Your task to perform on an android device: delete location history Image 0: 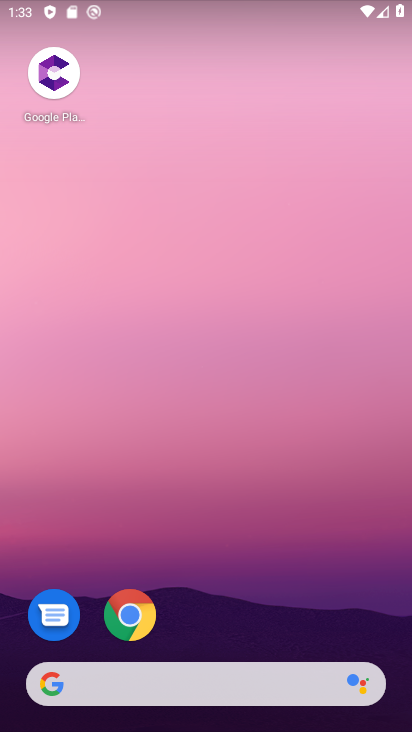
Step 0: drag from (276, 576) to (254, 204)
Your task to perform on an android device: delete location history Image 1: 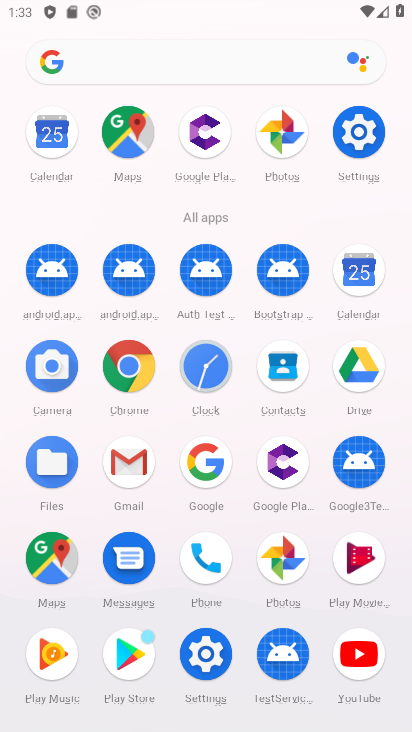
Step 1: click (129, 133)
Your task to perform on an android device: delete location history Image 2: 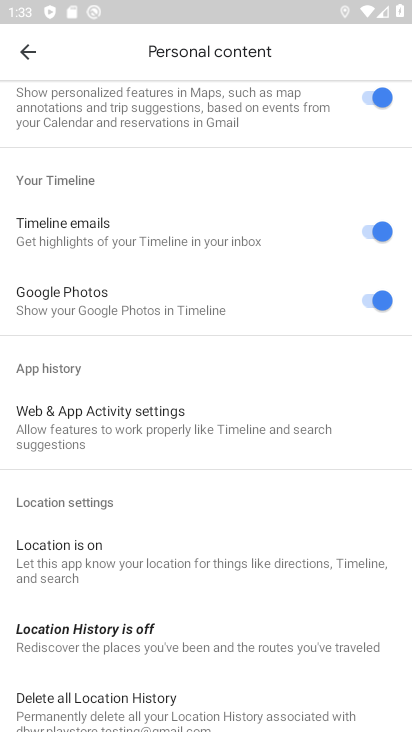
Step 2: drag from (201, 669) to (155, 249)
Your task to perform on an android device: delete location history Image 3: 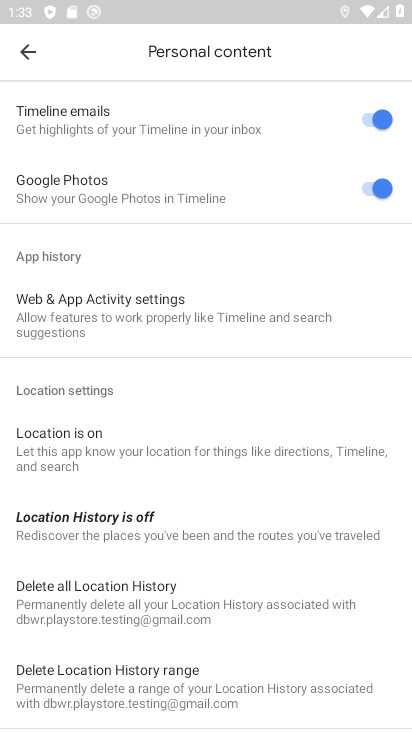
Step 3: click (182, 605)
Your task to perform on an android device: delete location history Image 4: 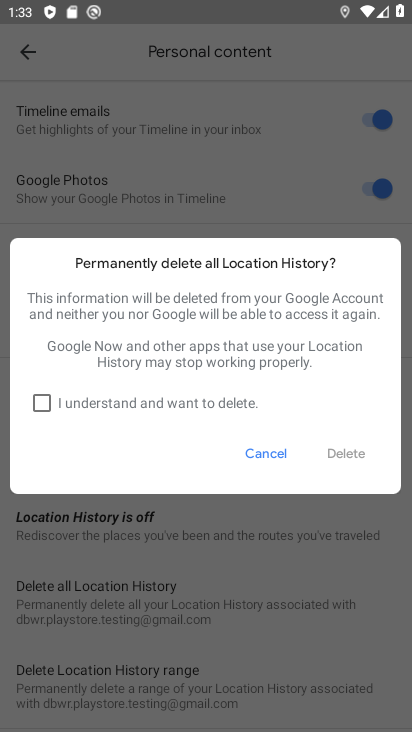
Step 4: click (197, 421)
Your task to perform on an android device: delete location history Image 5: 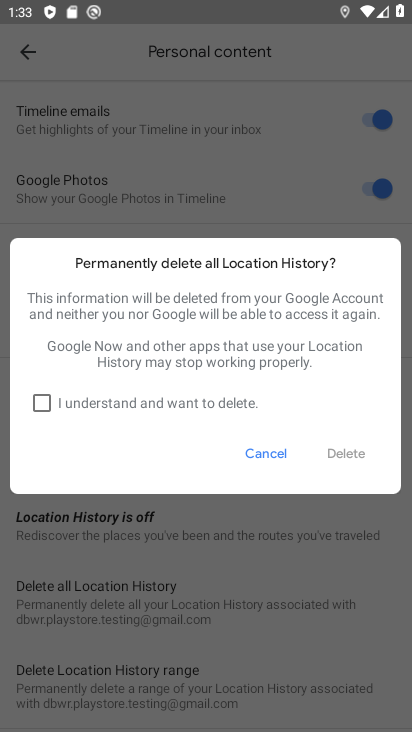
Step 5: click (193, 396)
Your task to perform on an android device: delete location history Image 6: 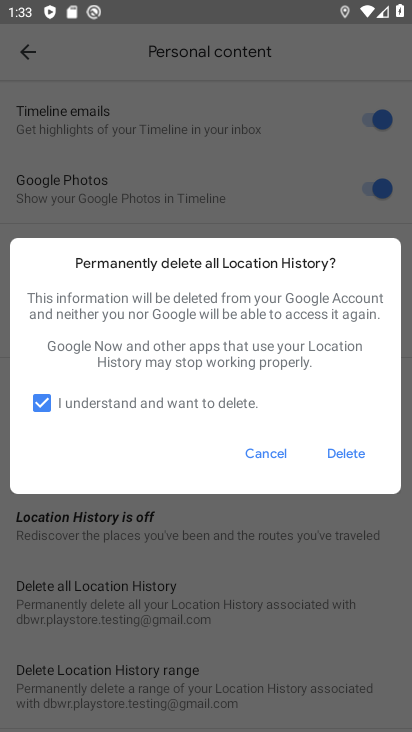
Step 6: click (350, 451)
Your task to perform on an android device: delete location history Image 7: 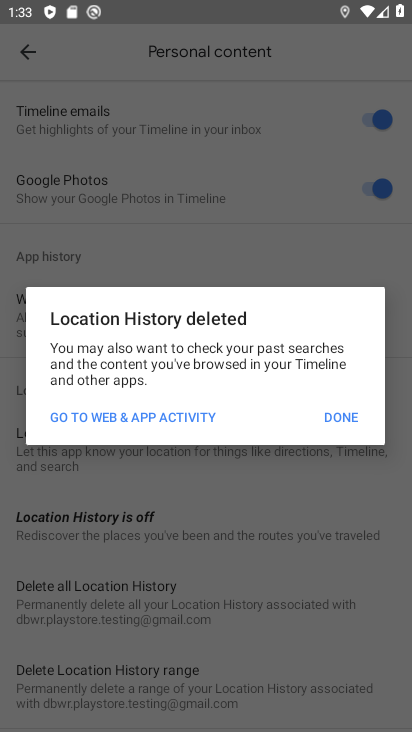
Step 7: click (342, 427)
Your task to perform on an android device: delete location history Image 8: 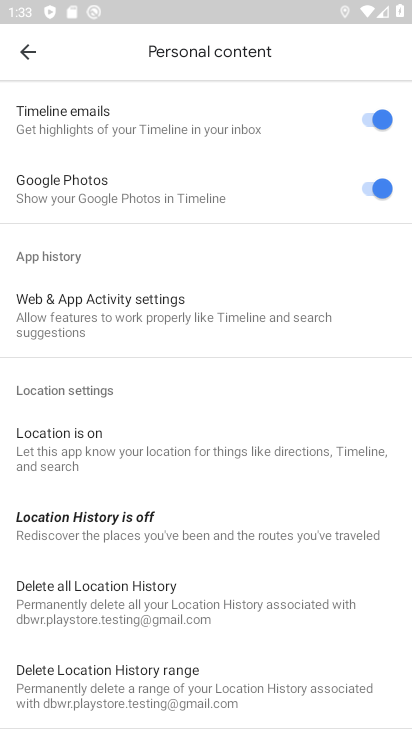
Step 8: task complete